Your task to perform on an android device: Checkthe settings for the Amazon Prime Music app Image 0: 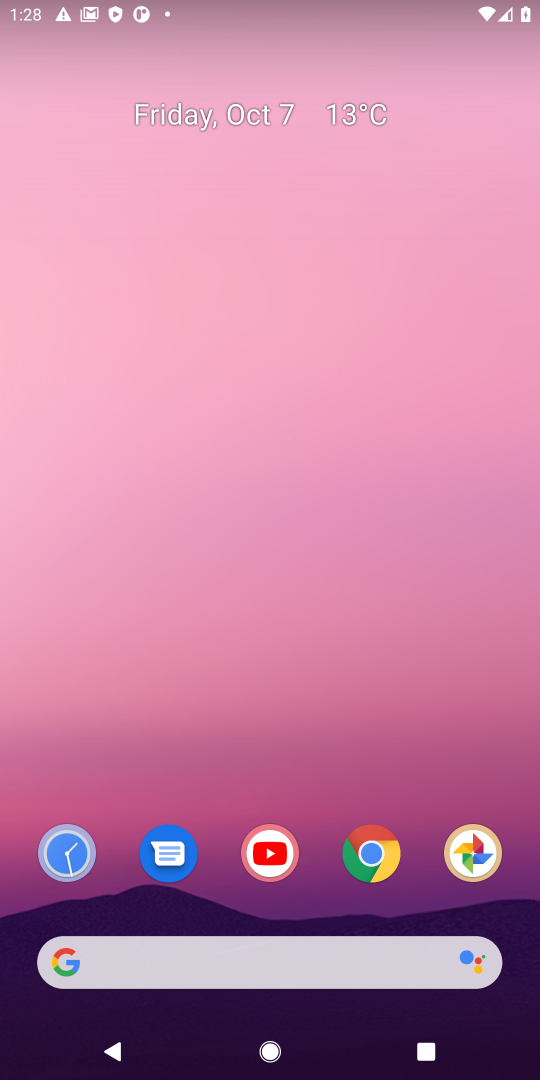
Step 0: task impossible